Your task to perform on an android device: change keyboard looks Image 0: 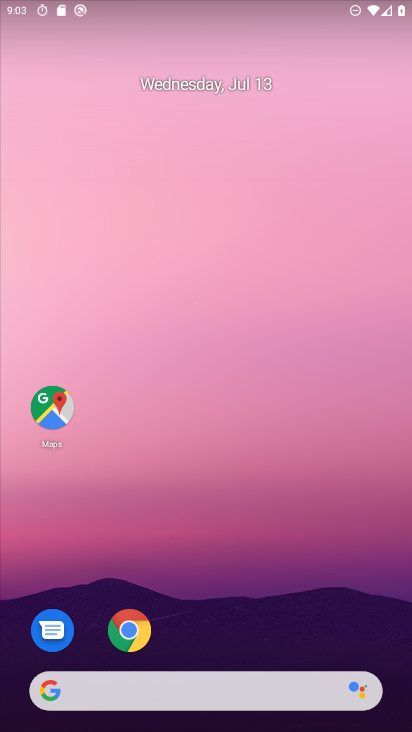
Step 0: drag from (394, 632) to (185, 16)
Your task to perform on an android device: change keyboard looks Image 1: 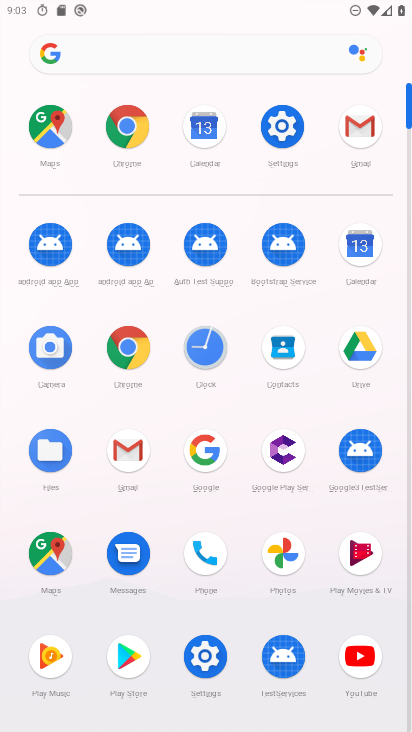
Step 1: click (204, 661)
Your task to perform on an android device: change keyboard looks Image 2: 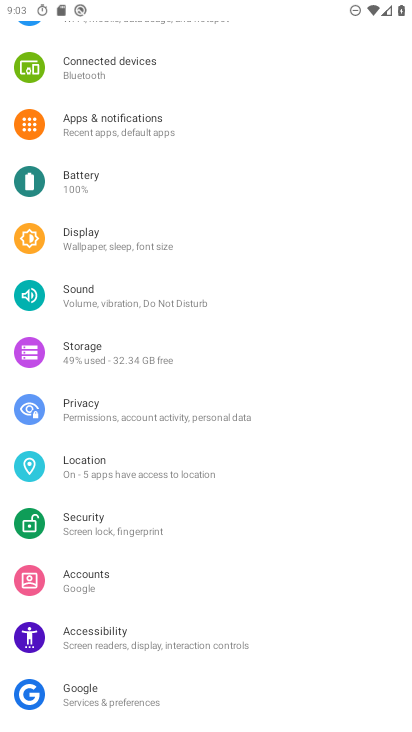
Step 2: drag from (128, 686) to (110, 106)
Your task to perform on an android device: change keyboard looks Image 3: 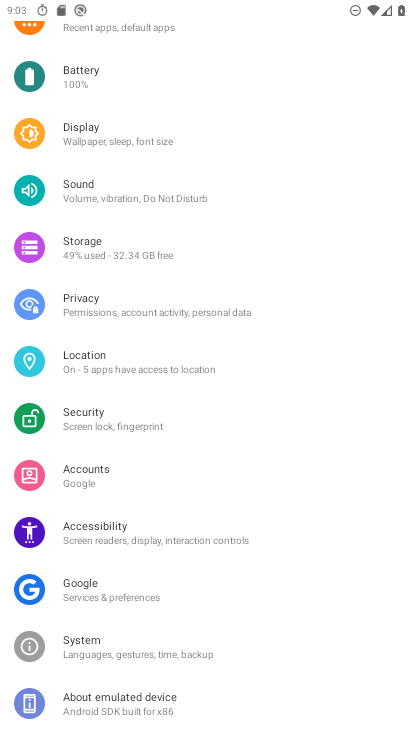
Step 3: click (102, 657)
Your task to perform on an android device: change keyboard looks Image 4: 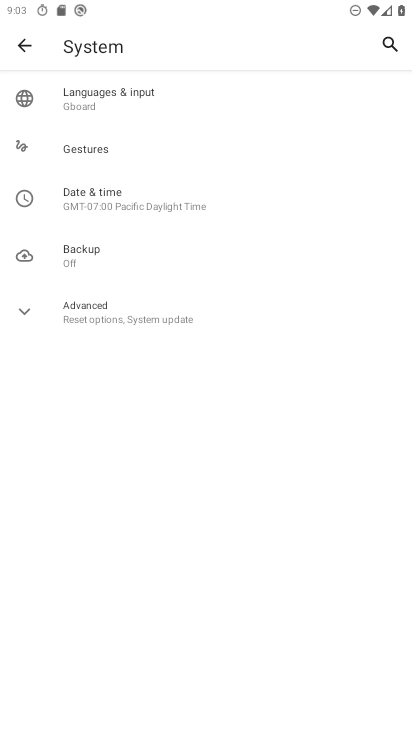
Step 4: click (158, 102)
Your task to perform on an android device: change keyboard looks Image 5: 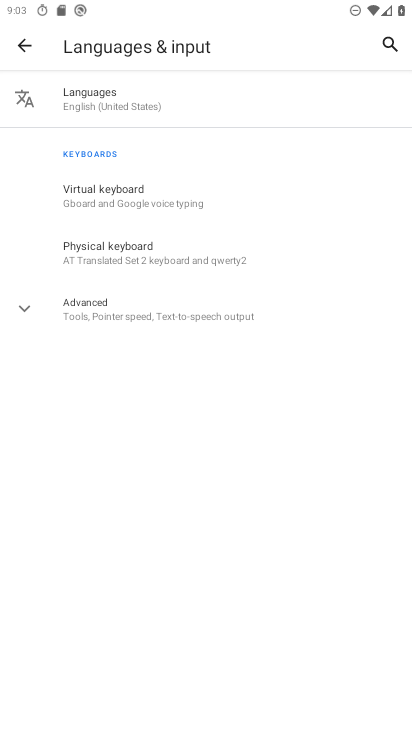
Step 5: click (135, 192)
Your task to perform on an android device: change keyboard looks Image 6: 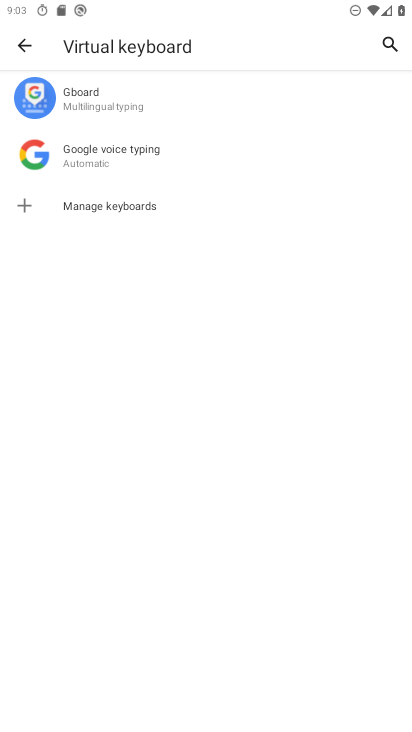
Step 6: click (119, 104)
Your task to perform on an android device: change keyboard looks Image 7: 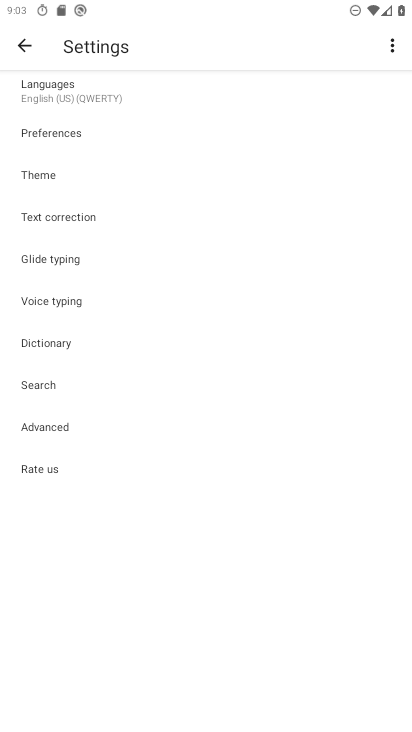
Step 7: click (69, 166)
Your task to perform on an android device: change keyboard looks Image 8: 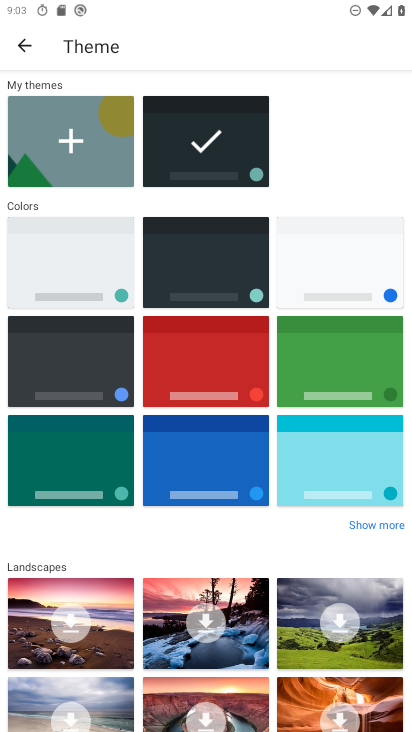
Step 8: click (307, 278)
Your task to perform on an android device: change keyboard looks Image 9: 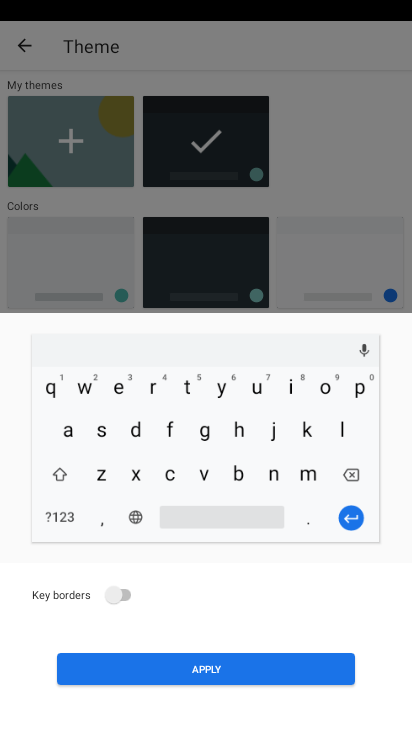
Step 9: click (197, 672)
Your task to perform on an android device: change keyboard looks Image 10: 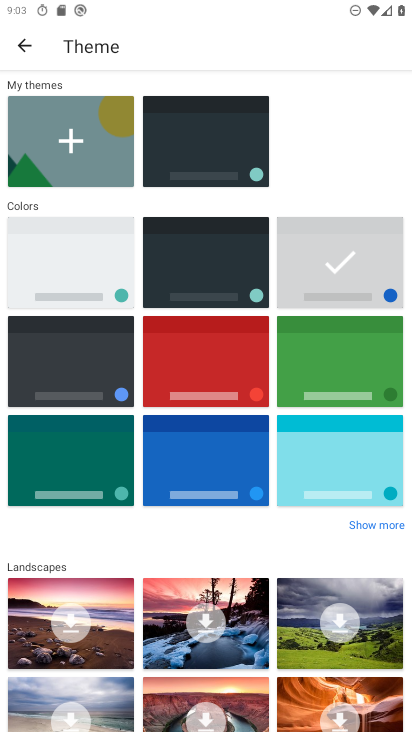
Step 10: task complete